Your task to perform on an android device: turn off translation in the chrome app Image 0: 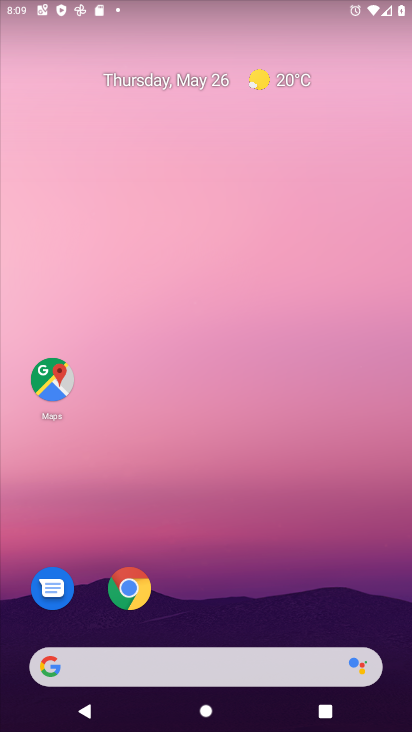
Step 0: drag from (346, 580) to (302, 16)
Your task to perform on an android device: turn off translation in the chrome app Image 1: 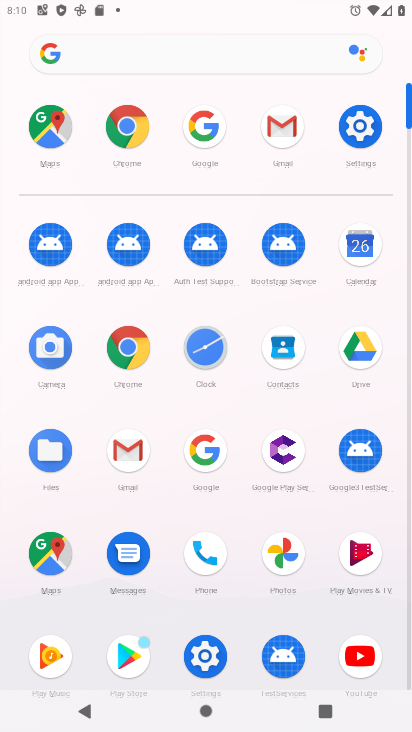
Step 1: click (145, 354)
Your task to perform on an android device: turn off translation in the chrome app Image 2: 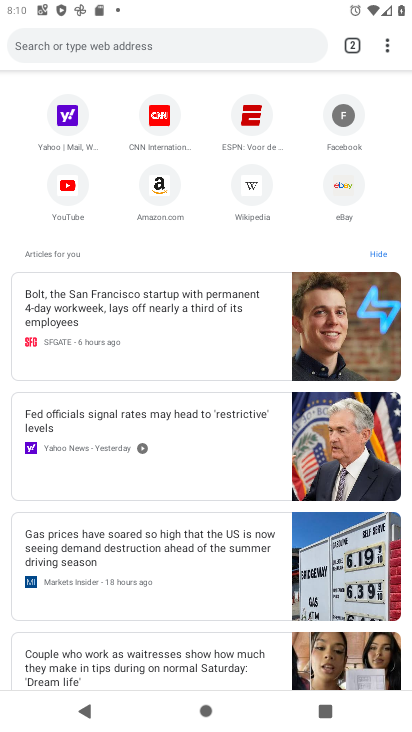
Step 2: click (390, 49)
Your task to perform on an android device: turn off translation in the chrome app Image 3: 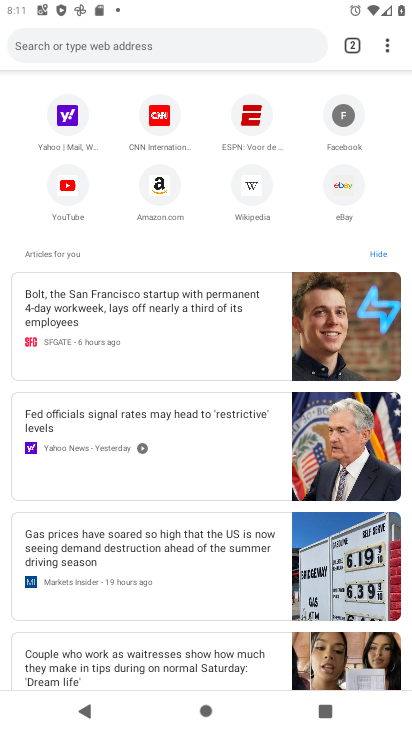
Step 3: click (387, 40)
Your task to perform on an android device: turn off translation in the chrome app Image 4: 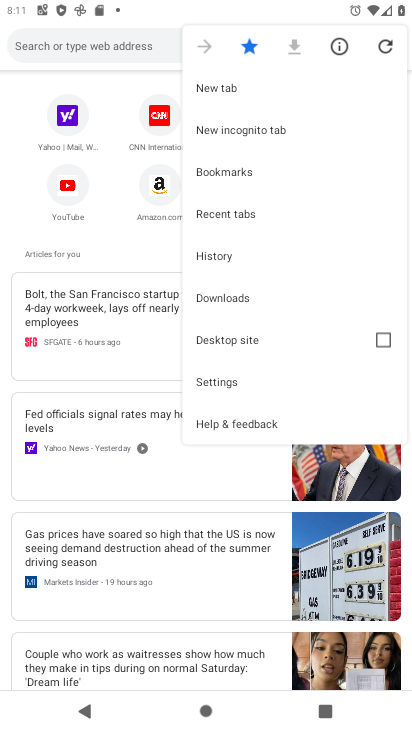
Step 4: click (218, 375)
Your task to perform on an android device: turn off translation in the chrome app Image 5: 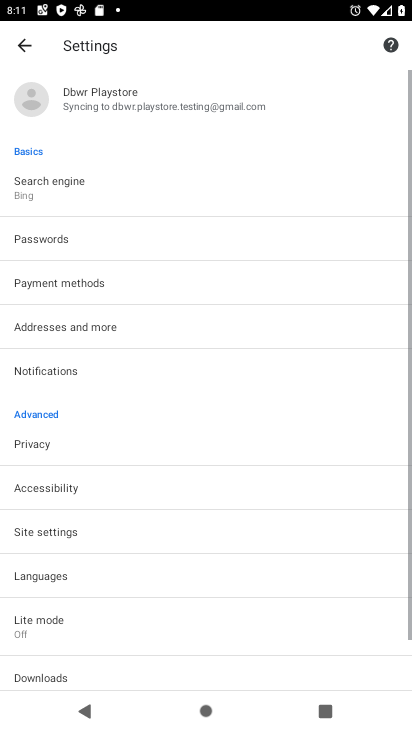
Step 5: click (67, 575)
Your task to perform on an android device: turn off translation in the chrome app Image 6: 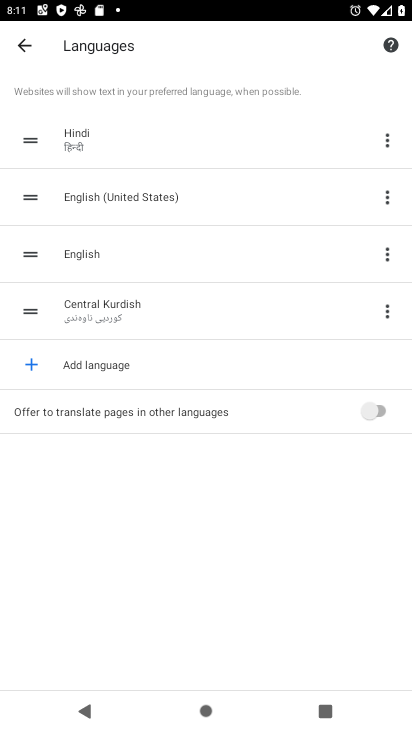
Step 6: task complete